Your task to perform on an android device: What's the weather? Image 0: 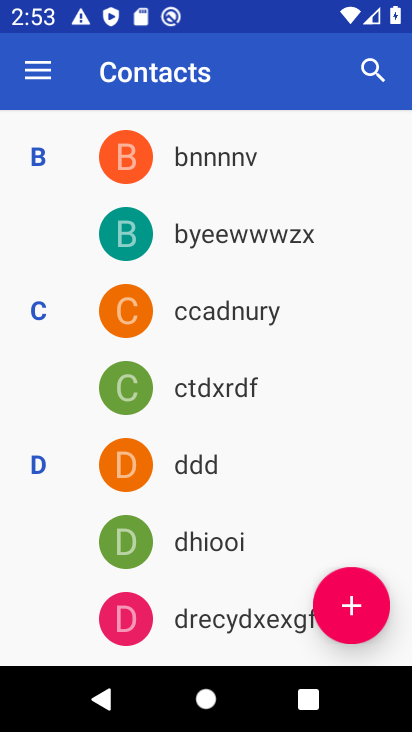
Step 0: press home button
Your task to perform on an android device: What's the weather? Image 1: 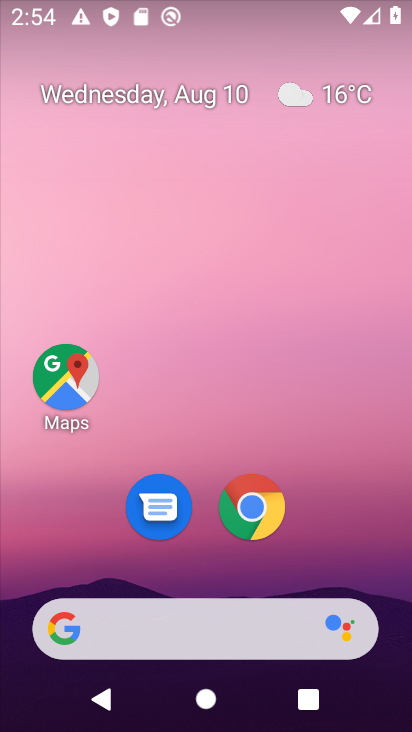
Step 1: click (334, 99)
Your task to perform on an android device: What's the weather? Image 2: 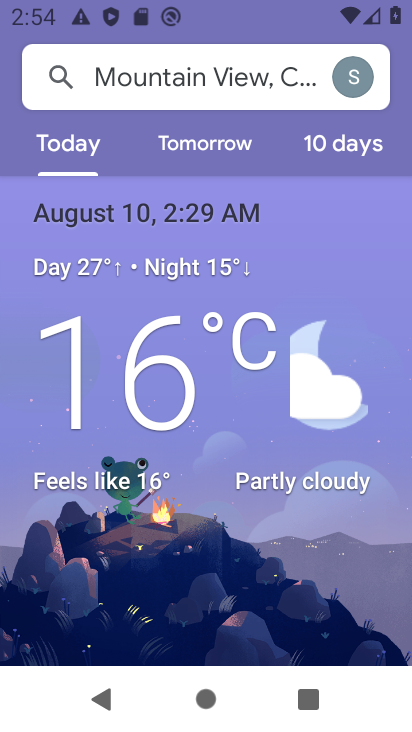
Step 2: task complete